Your task to perform on an android device: move an email to a new category in the gmail app Image 0: 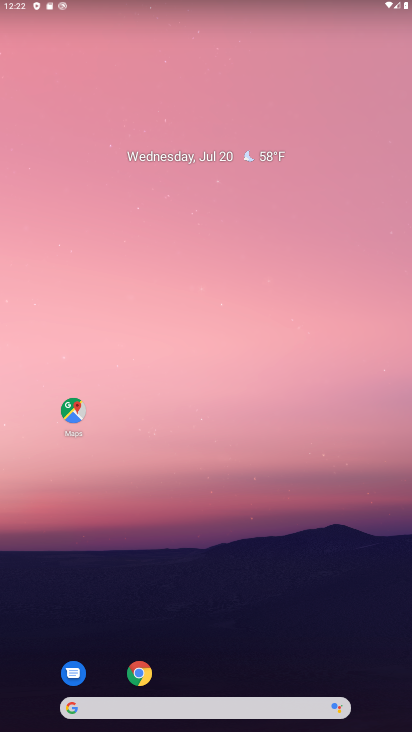
Step 0: drag from (231, 674) to (158, 36)
Your task to perform on an android device: move an email to a new category in the gmail app Image 1: 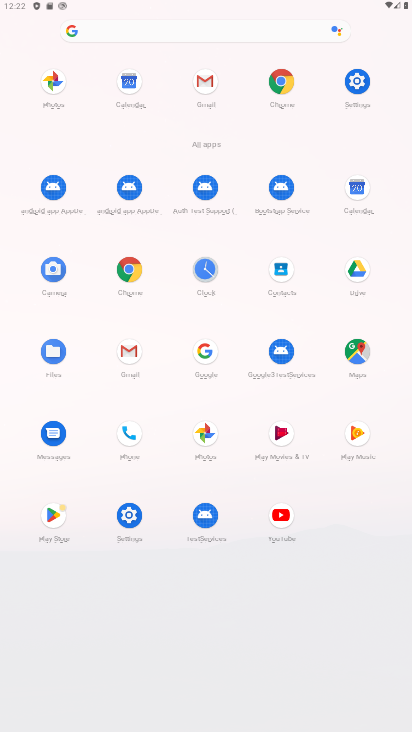
Step 1: click (135, 354)
Your task to perform on an android device: move an email to a new category in the gmail app Image 2: 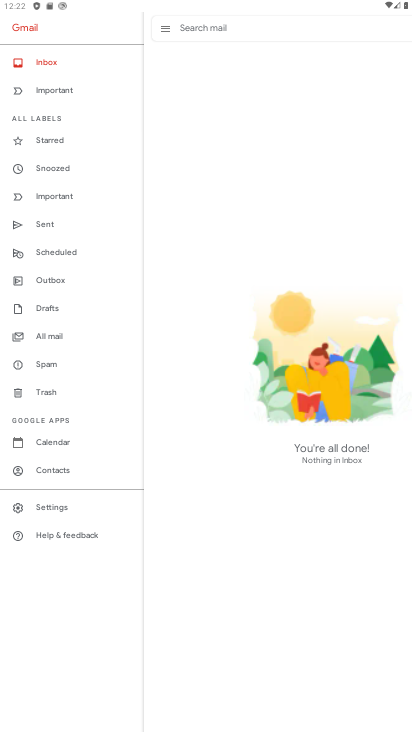
Step 2: task complete